Your task to perform on an android device: Show me popular videos on Youtube Image 0: 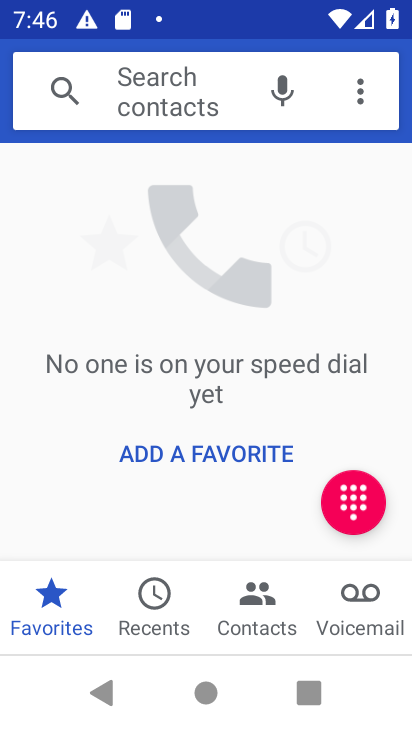
Step 0: press home button
Your task to perform on an android device: Show me popular videos on Youtube Image 1: 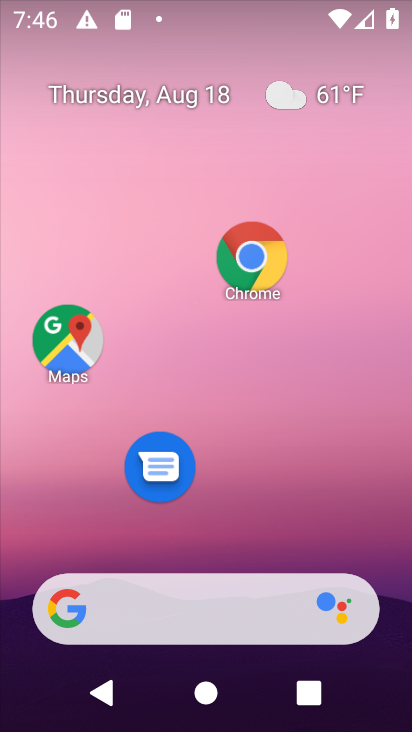
Step 1: task complete